Your task to perform on an android device: Go to internet settings Image 0: 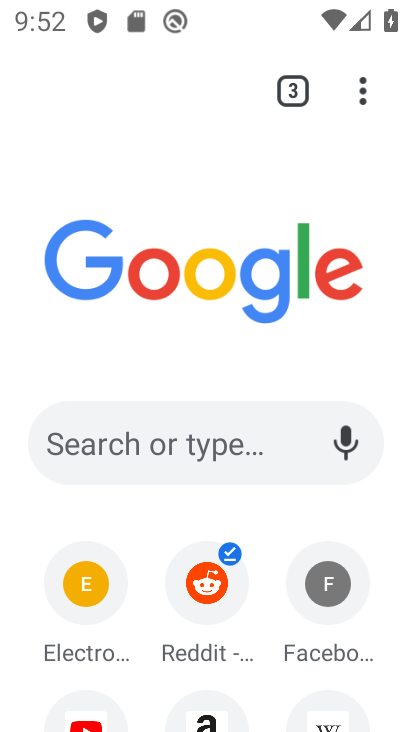
Step 0: press home button
Your task to perform on an android device: Go to internet settings Image 1: 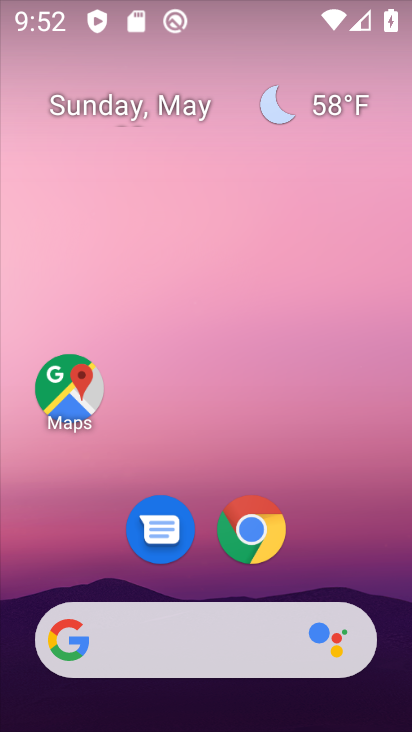
Step 1: drag from (191, 577) to (185, 10)
Your task to perform on an android device: Go to internet settings Image 2: 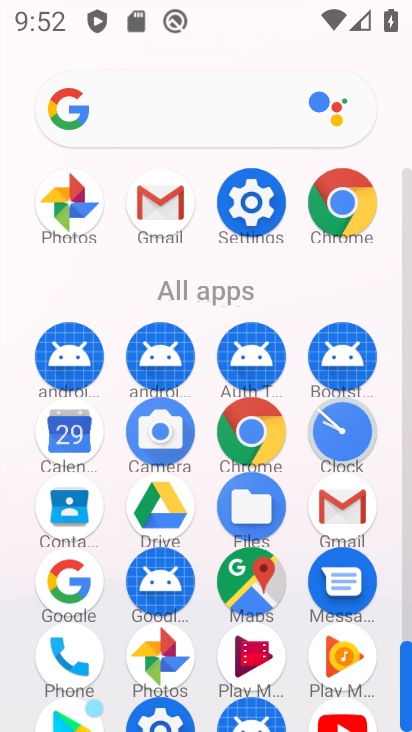
Step 2: click (266, 206)
Your task to perform on an android device: Go to internet settings Image 3: 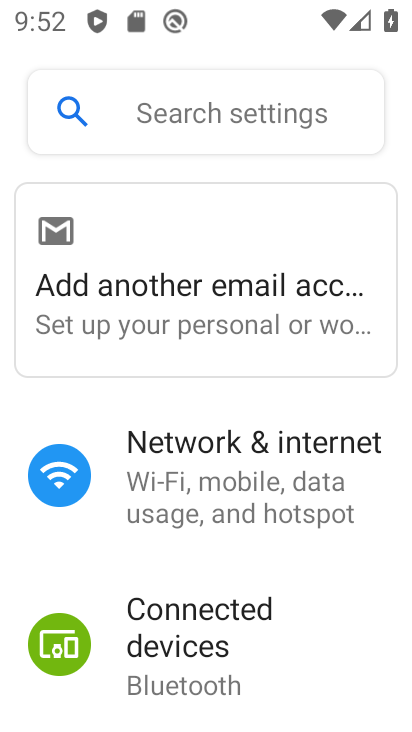
Step 3: click (242, 510)
Your task to perform on an android device: Go to internet settings Image 4: 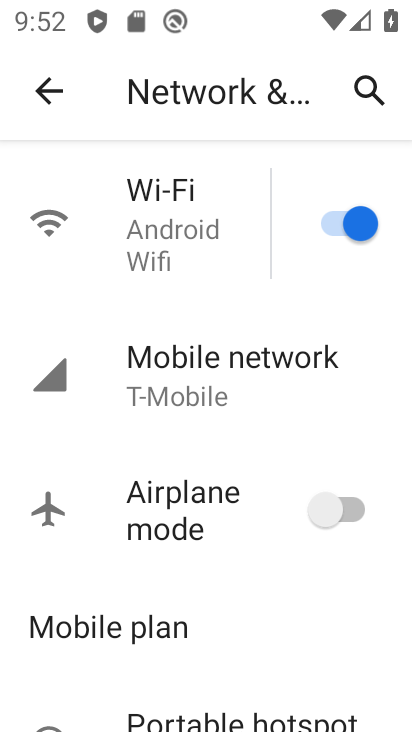
Step 4: task complete